Your task to perform on an android device: Check the weather Image 0: 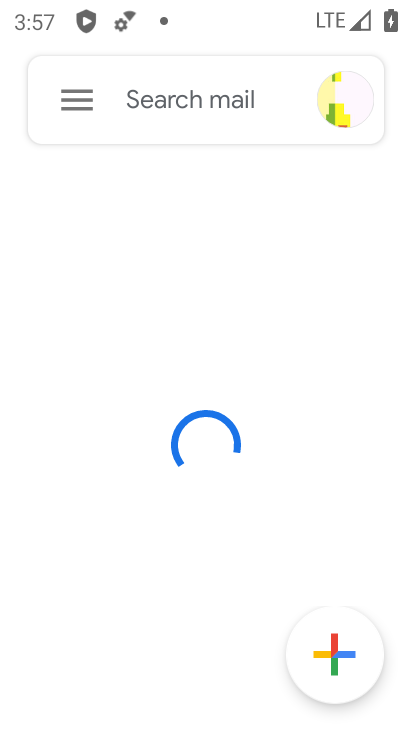
Step 0: press home button
Your task to perform on an android device: Check the weather Image 1: 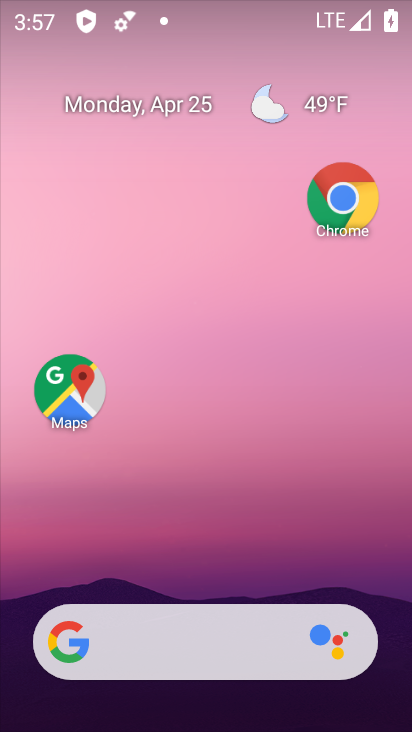
Step 1: click (311, 102)
Your task to perform on an android device: Check the weather Image 2: 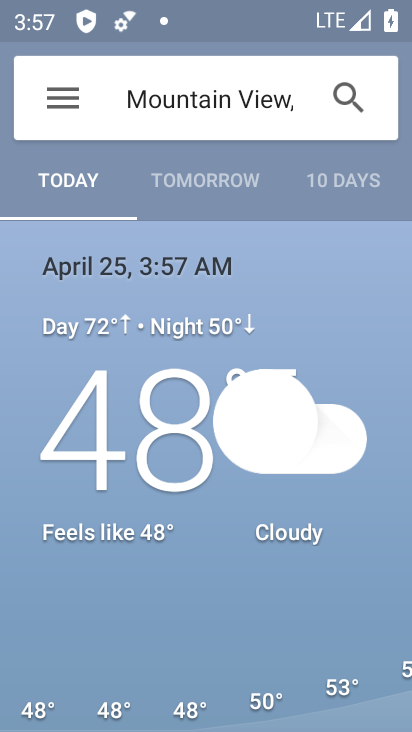
Step 2: task complete